Your task to perform on an android device: turn off wifi Image 0: 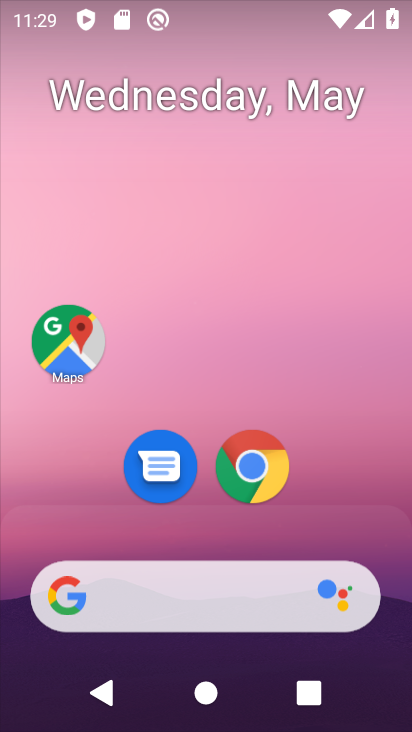
Step 0: drag from (176, 548) to (259, 6)
Your task to perform on an android device: turn off wifi Image 1: 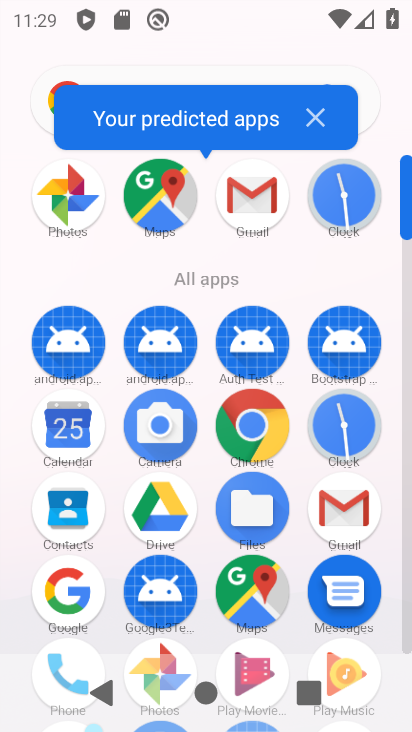
Step 1: drag from (226, 572) to (251, 287)
Your task to perform on an android device: turn off wifi Image 2: 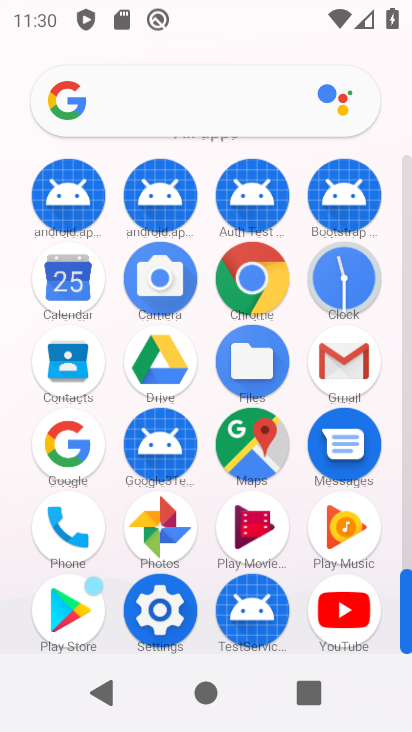
Step 2: click (170, 636)
Your task to perform on an android device: turn off wifi Image 3: 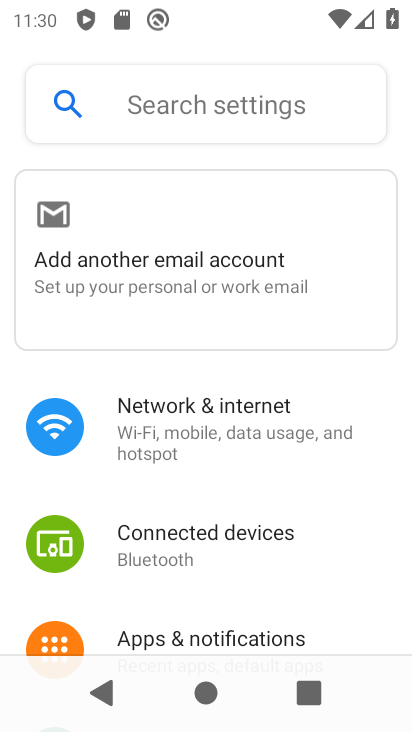
Step 3: click (200, 429)
Your task to perform on an android device: turn off wifi Image 4: 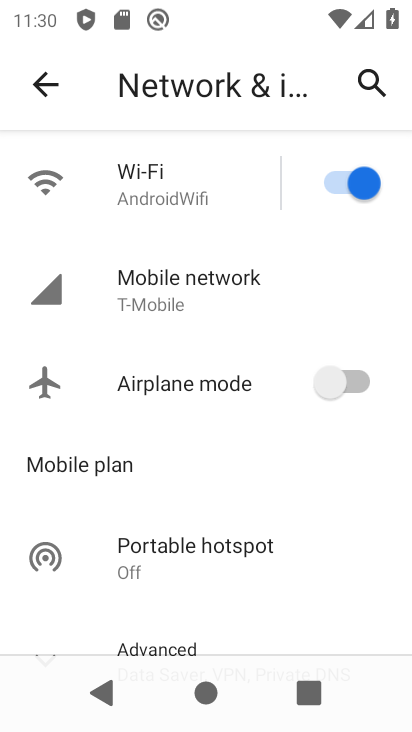
Step 4: click (360, 169)
Your task to perform on an android device: turn off wifi Image 5: 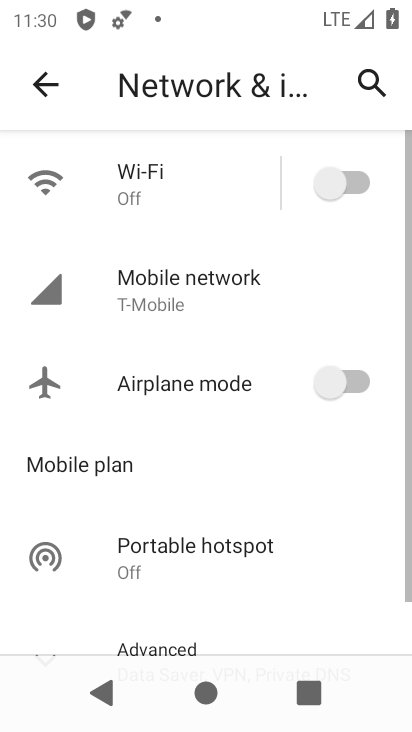
Step 5: task complete